Your task to perform on an android device: create a new album in the google photos Image 0: 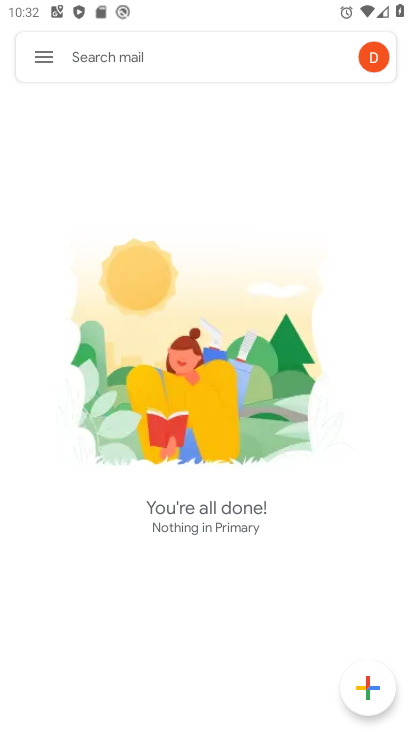
Step 0: press home button
Your task to perform on an android device: create a new album in the google photos Image 1: 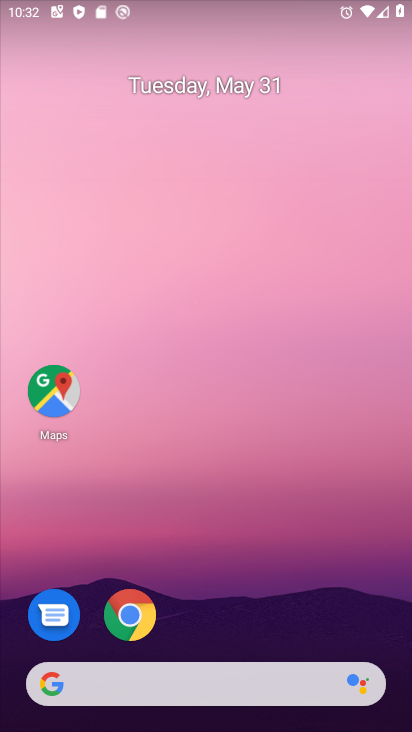
Step 1: drag from (280, 567) to (334, 34)
Your task to perform on an android device: create a new album in the google photos Image 2: 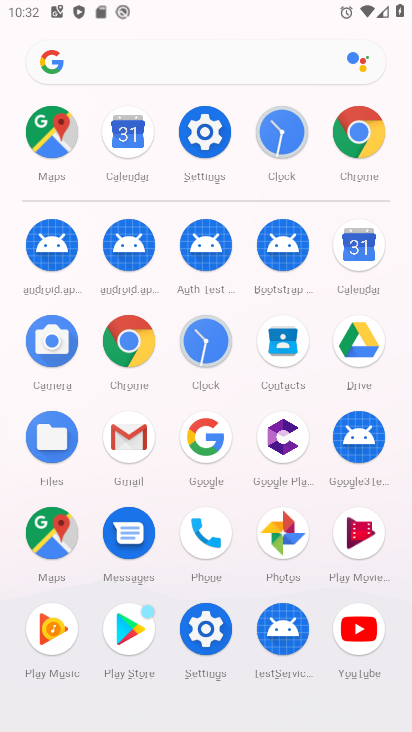
Step 2: click (290, 521)
Your task to perform on an android device: create a new album in the google photos Image 3: 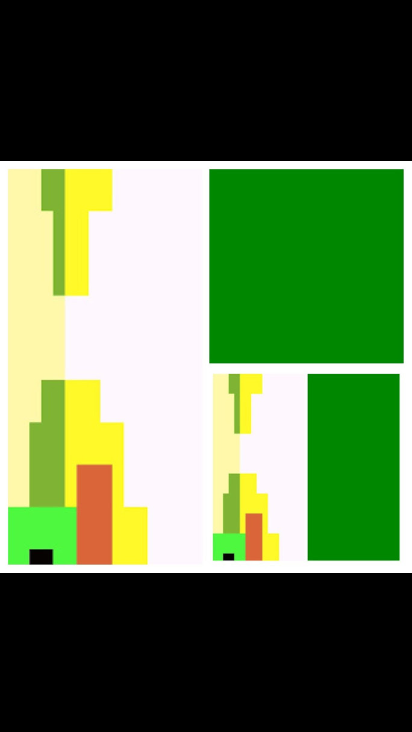
Step 3: press back button
Your task to perform on an android device: create a new album in the google photos Image 4: 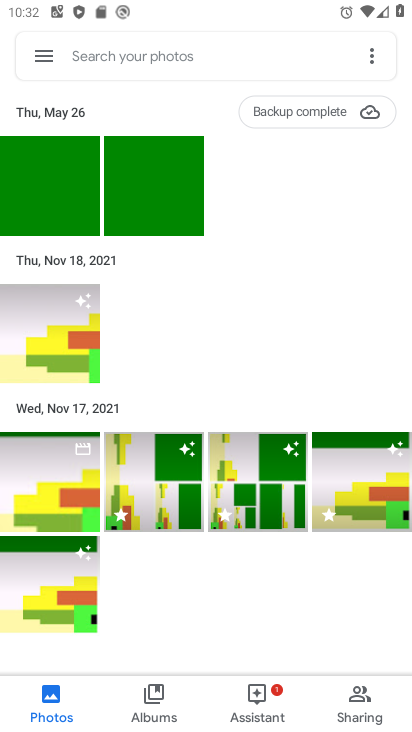
Step 4: click (157, 701)
Your task to perform on an android device: create a new album in the google photos Image 5: 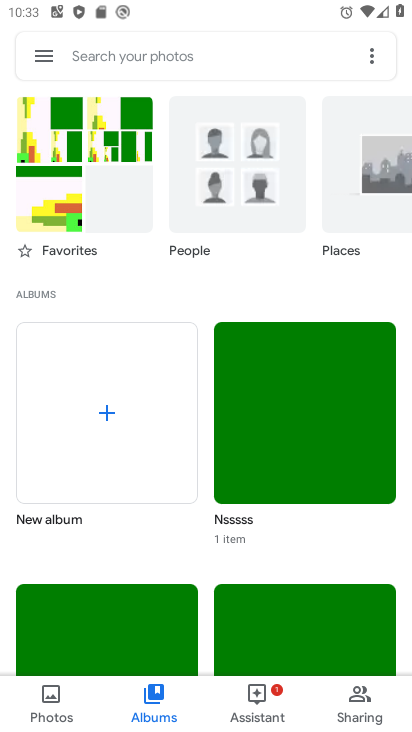
Step 5: task complete